Your task to perform on an android device: open chrome and create a bookmark for the current page Image 0: 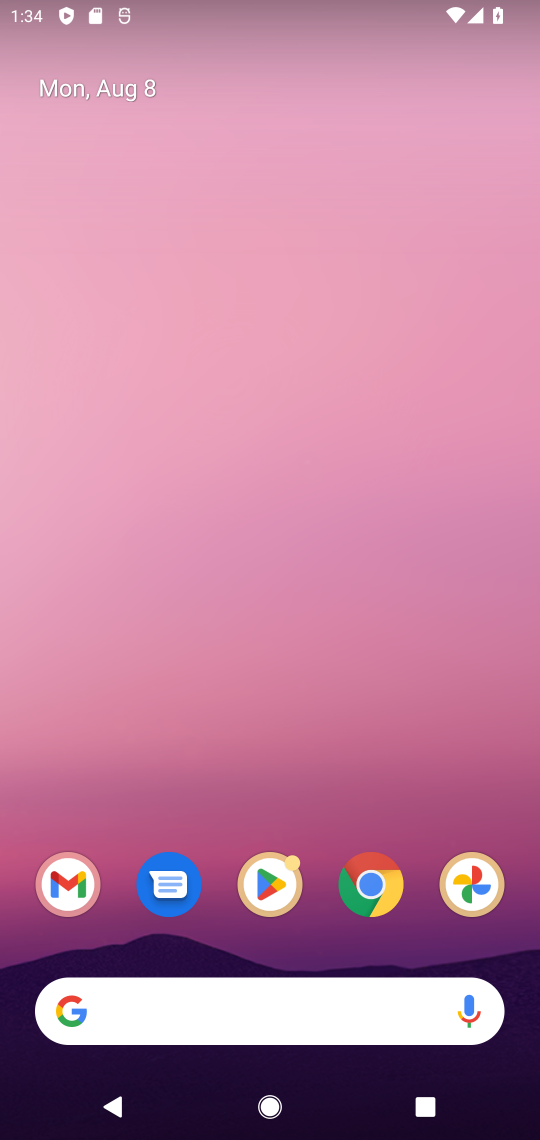
Step 0: click (367, 884)
Your task to perform on an android device: open chrome and create a bookmark for the current page Image 1: 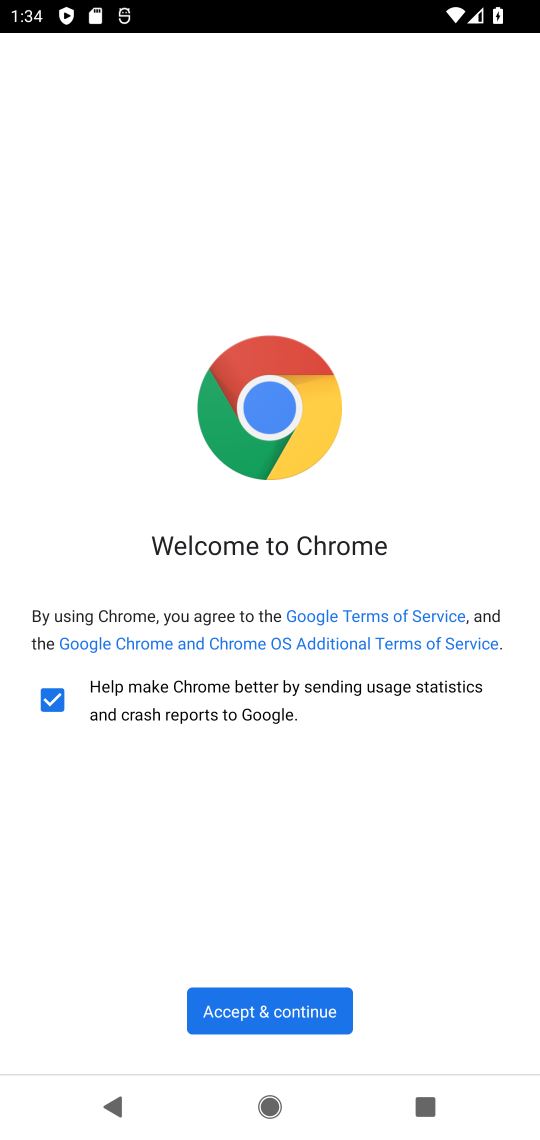
Step 1: click (264, 999)
Your task to perform on an android device: open chrome and create a bookmark for the current page Image 2: 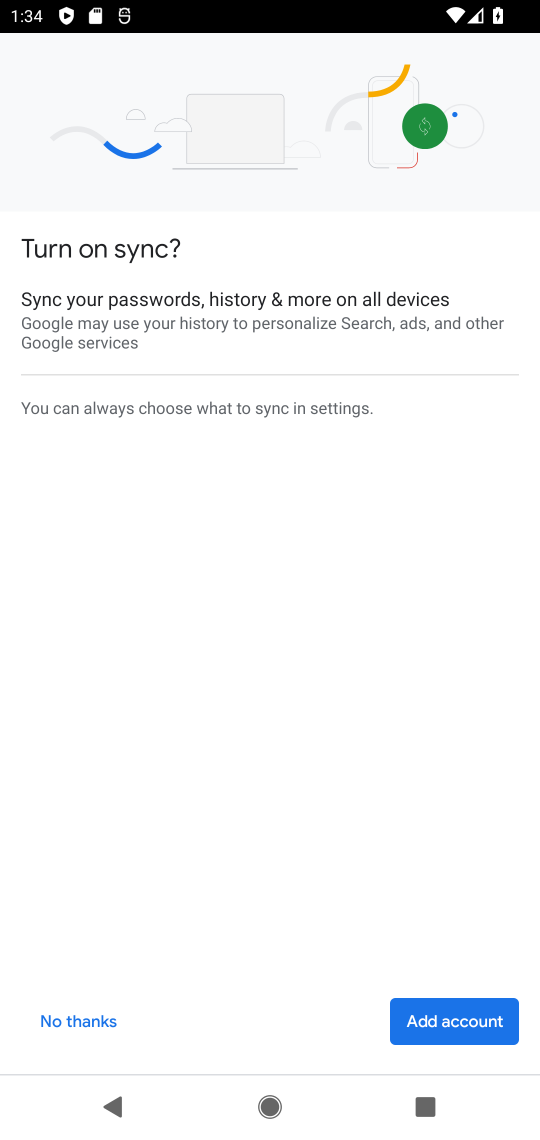
Step 2: click (97, 1015)
Your task to perform on an android device: open chrome and create a bookmark for the current page Image 3: 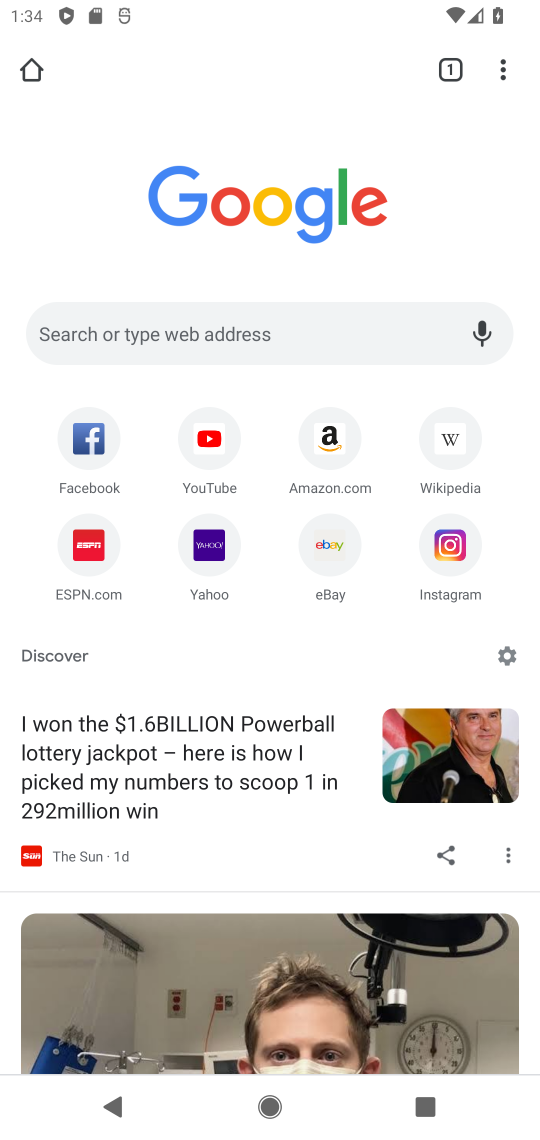
Step 3: click (509, 77)
Your task to perform on an android device: open chrome and create a bookmark for the current page Image 4: 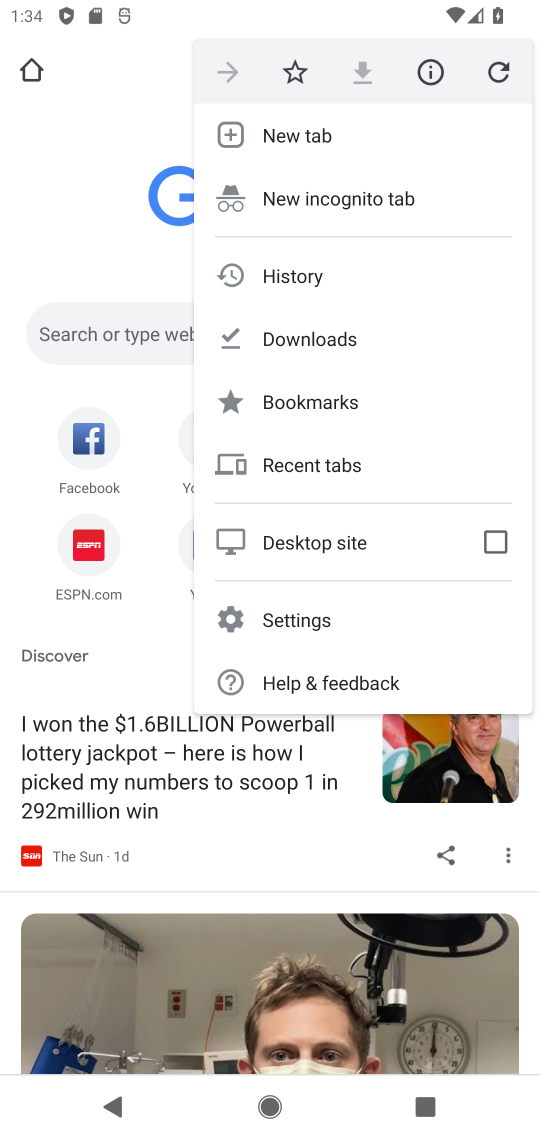
Step 4: click (299, 78)
Your task to perform on an android device: open chrome and create a bookmark for the current page Image 5: 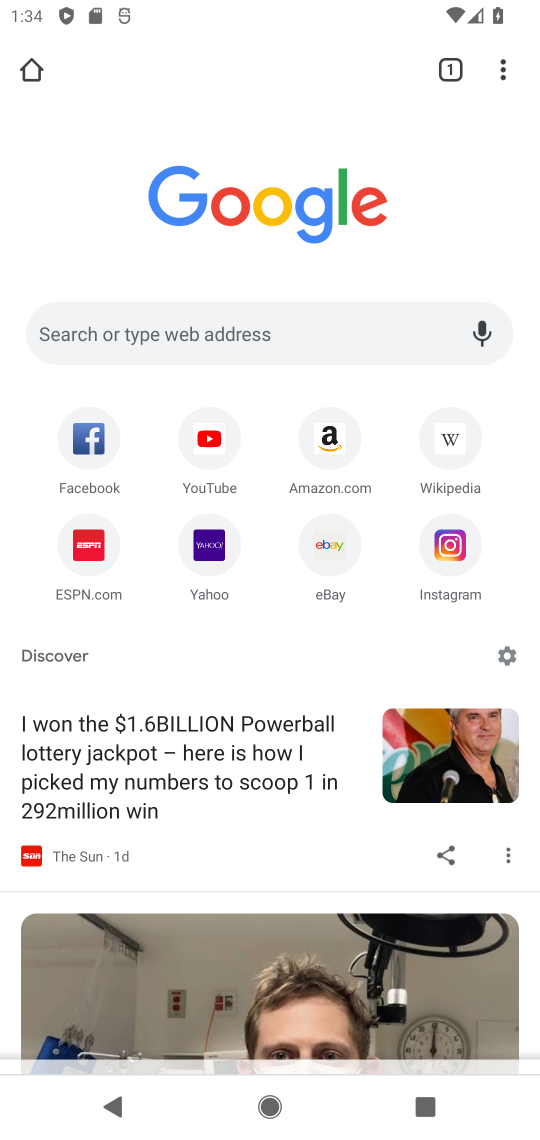
Step 5: task complete